Your task to perform on an android device: Open the calendar app, open the side menu, and click the "Day" option Image 0: 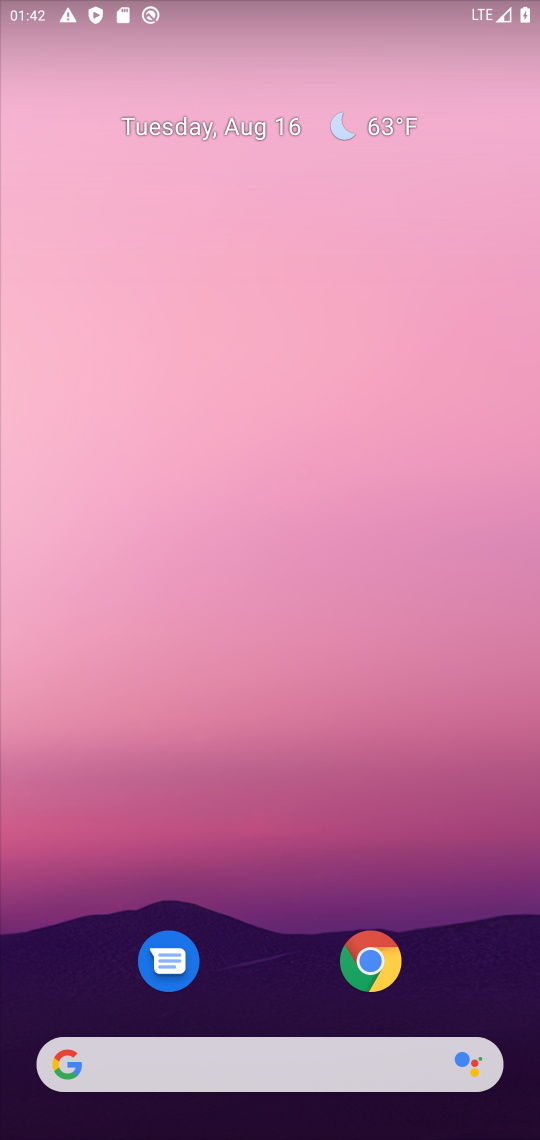
Step 0: press home button
Your task to perform on an android device: Open the calendar app, open the side menu, and click the "Day" option Image 1: 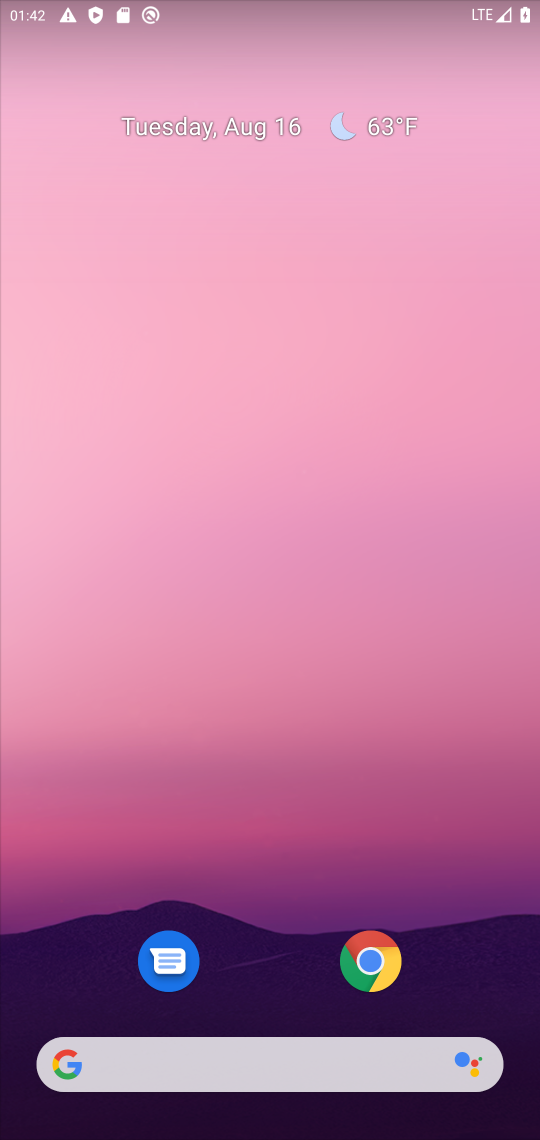
Step 1: drag from (235, 965) to (267, 4)
Your task to perform on an android device: Open the calendar app, open the side menu, and click the "Day" option Image 2: 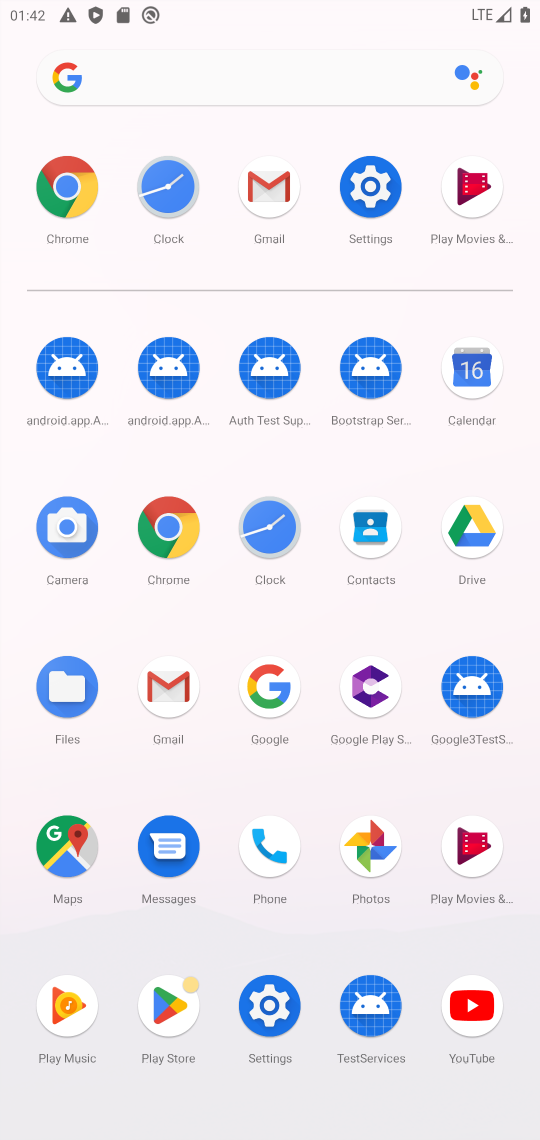
Step 2: click (455, 384)
Your task to perform on an android device: Open the calendar app, open the side menu, and click the "Day" option Image 3: 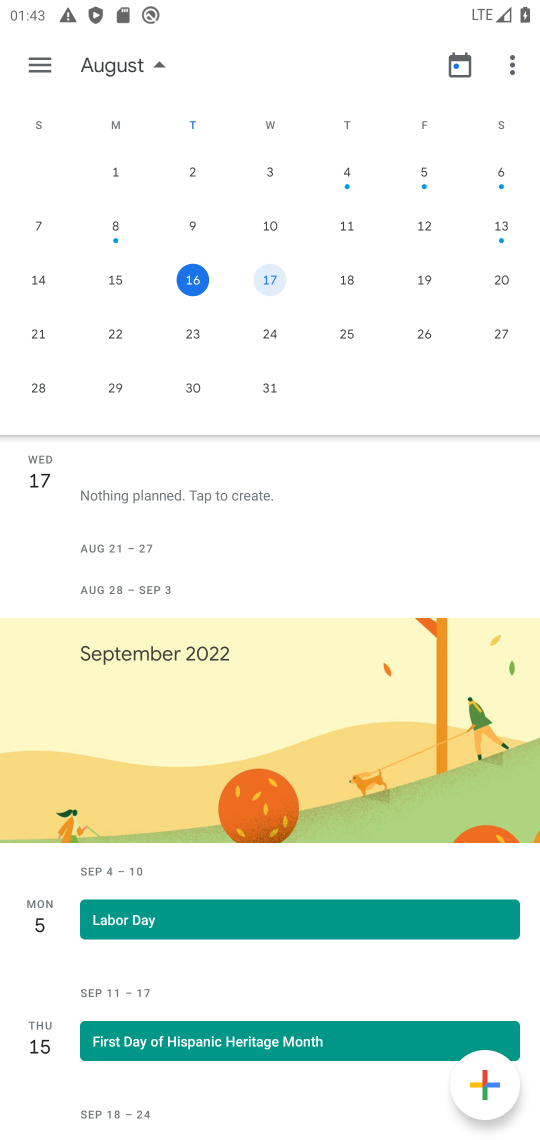
Step 3: click (36, 61)
Your task to perform on an android device: Open the calendar app, open the side menu, and click the "Day" option Image 4: 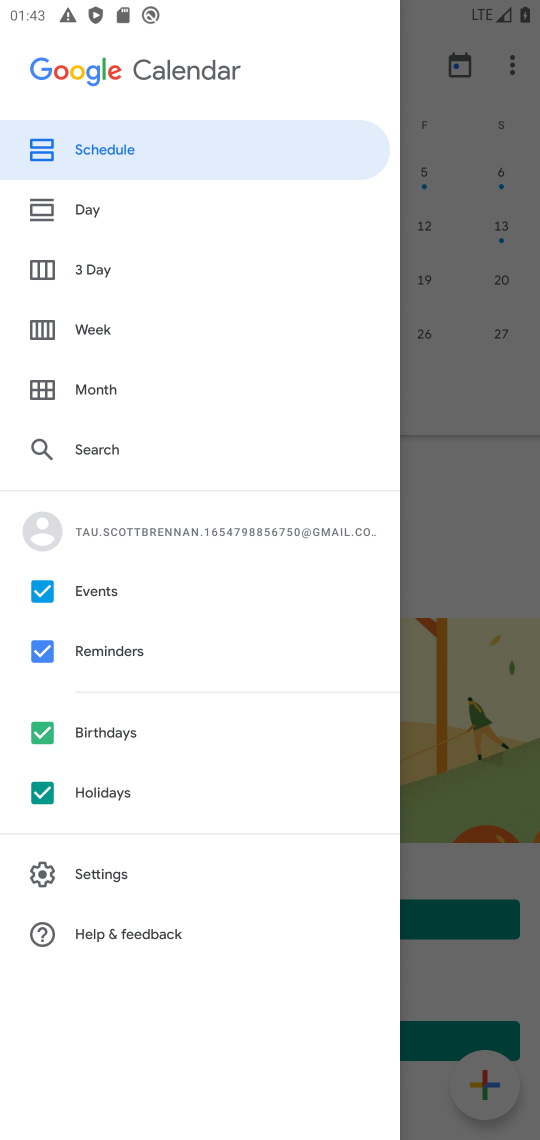
Step 4: click (92, 202)
Your task to perform on an android device: Open the calendar app, open the side menu, and click the "Day" option Image 5: 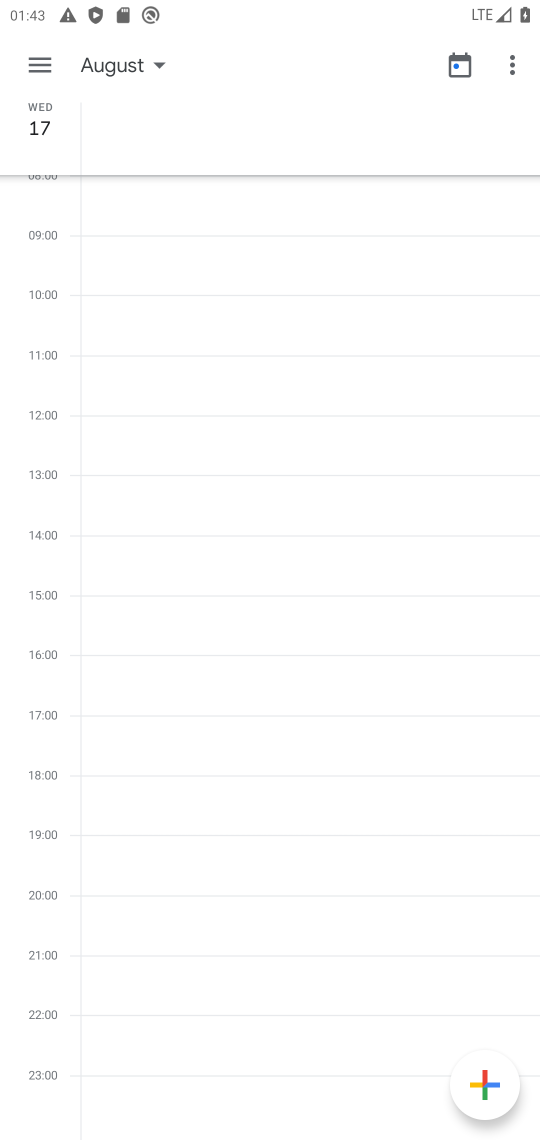
Step 5: task complete